Your task to perform on an android device: What's the weather? Image 0: 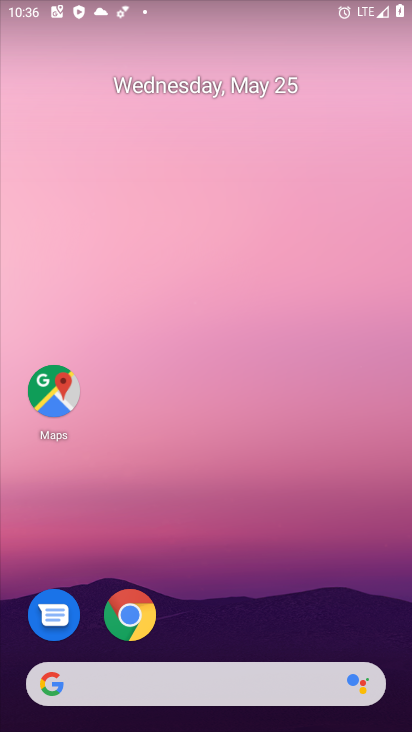
Step 0: click (207, 680)
Your task to perform on an android device: What's the weather? Image 1: 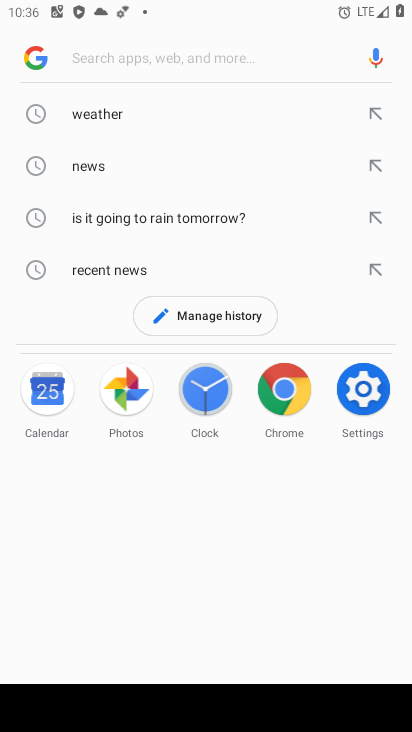
Step 1: click (84, 116)
Your task to perform on an android device: What's the weather? Image 2: 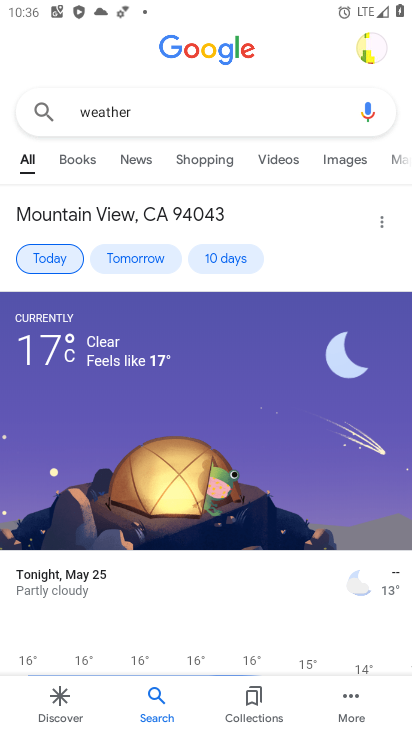
Step 2: click (74, 253)
Your task to perform on an android device: What's the weather? Image 3: 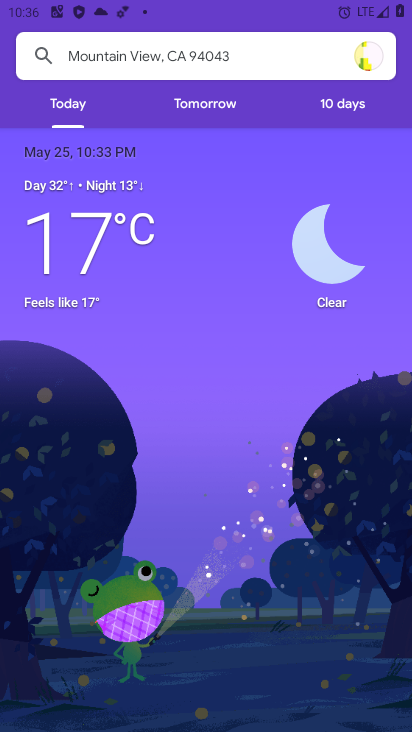
Step 3: task complete